Your task to perform on an android device: Show me popular videos on Youtube Image 0: 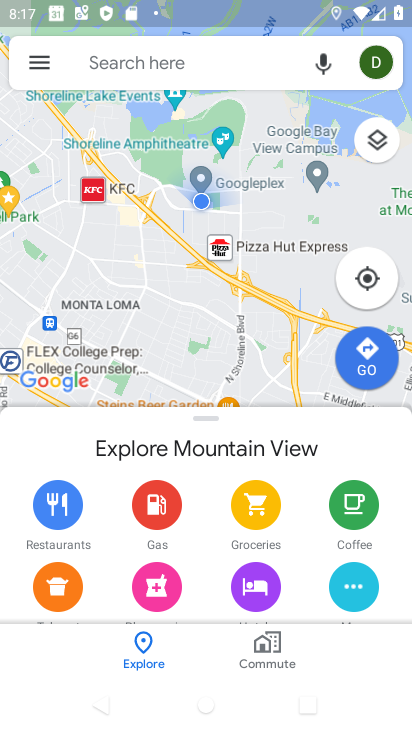
Step 0: press home button
Your task to perform on an android device: Show me popular videos on Youtube Image 1: 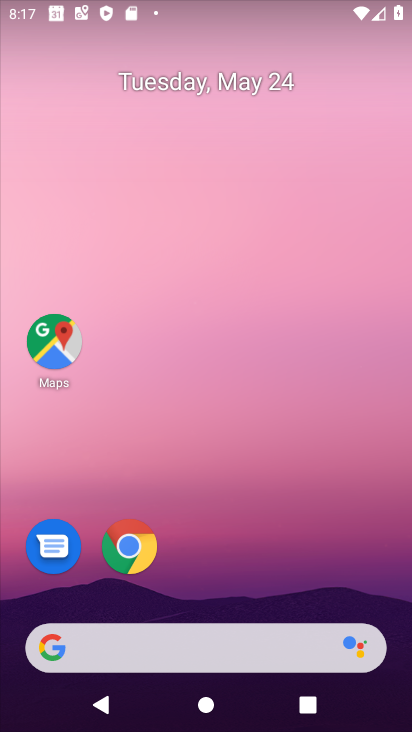
Step 1: drag from (276, 581) to (272, 45)
Your task to perform on an android device: Show me popular videos on Youtube Image 2: 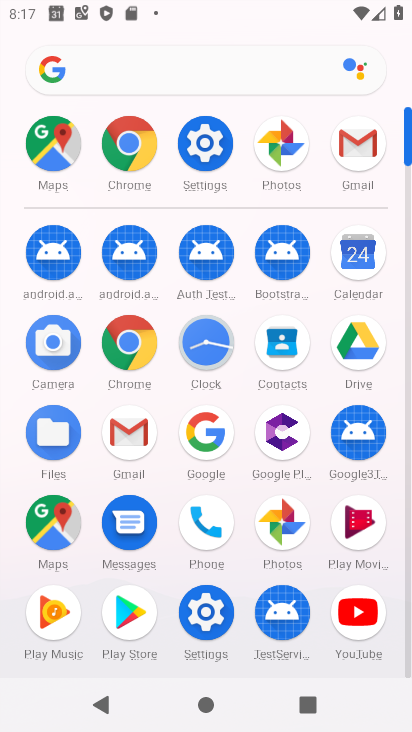
Step 2: click (368, 616)
Your task to perform on an android device: Show me popular videos on Youtube Image 3: 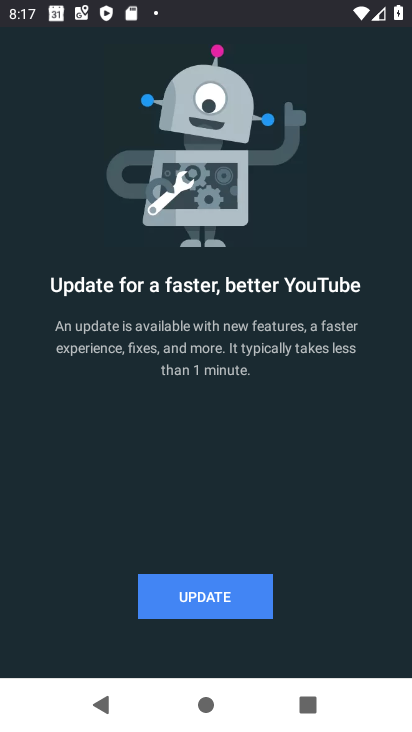
Step 3: click (272, 601)
Your task to perform on an android device: Show me popular videos on Youtube Image 4: 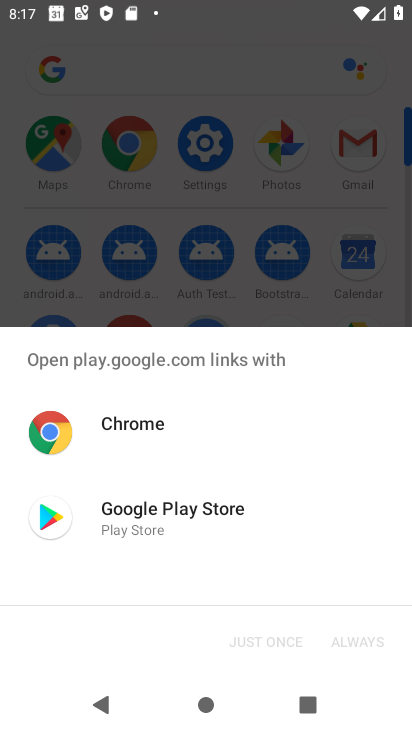
Step 4: click (145, 517)
Your task to perform on an android device: Show me popular videos on Youtube Image 5: 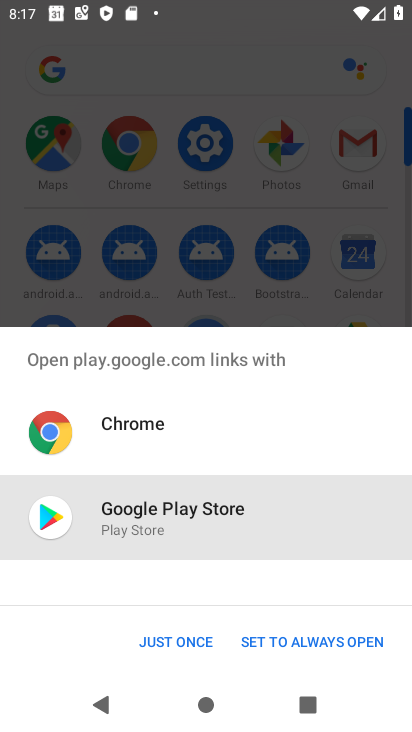
Step 5: click (180, 629)
Your task to perform on an android device: Show me popular videos on Youtube Image 6: 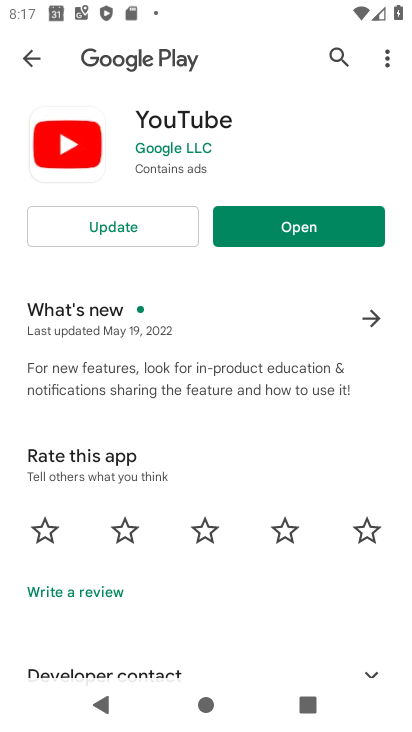
Step 6: click (343, 222)
Your task to perform on an android device: Show me popular videos on Youtube Image 7: 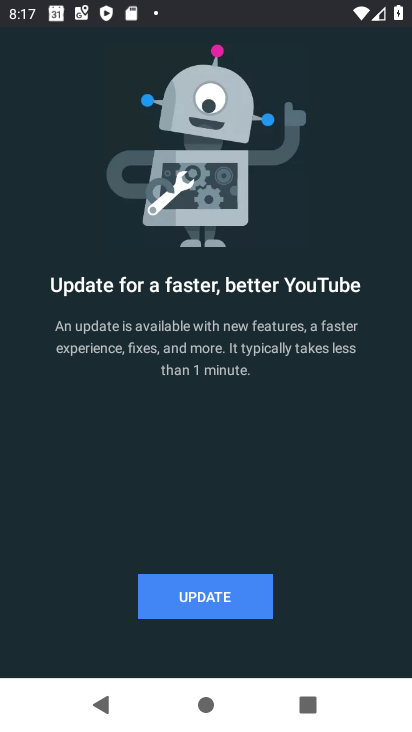
Step 7: click (251, 600)
Your task to perform on an android device: Show me popular videos on Youtube Image 8: 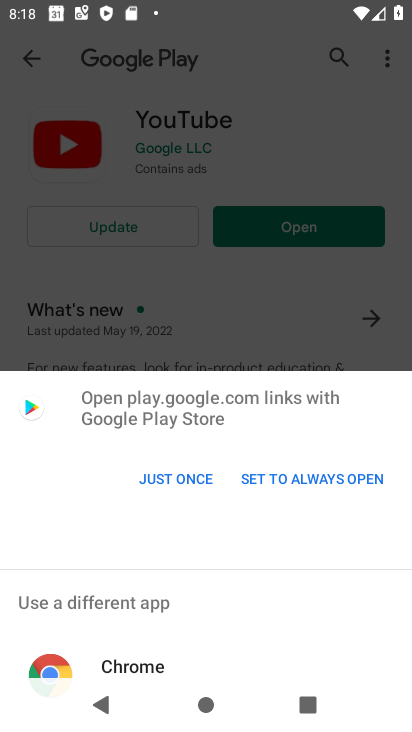
Step 8: click (182, 467)
Your task to perform on an android device: Show me popular videos on Youtube Image 9: 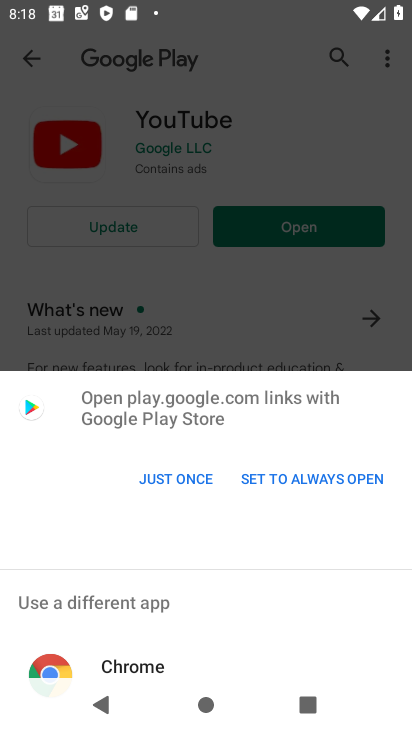
Step 9: click (185, 472)
Your task to perform on an android device: Show me popular videos on Youtube Image 10: 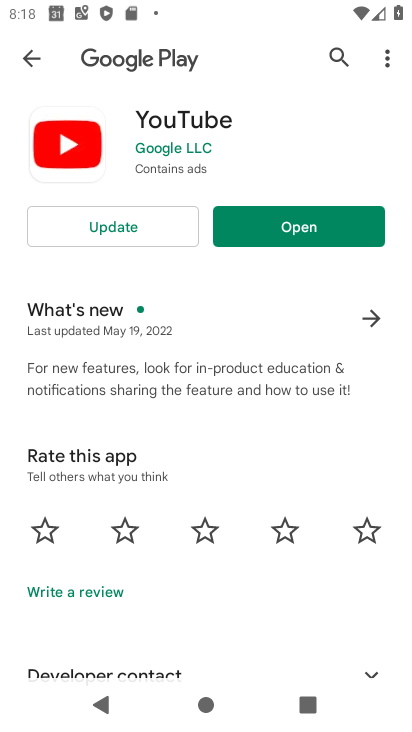
Step 10: click (157, 228)
Your task to perform on an android device: Show me popular videos on Youtube Image 11: 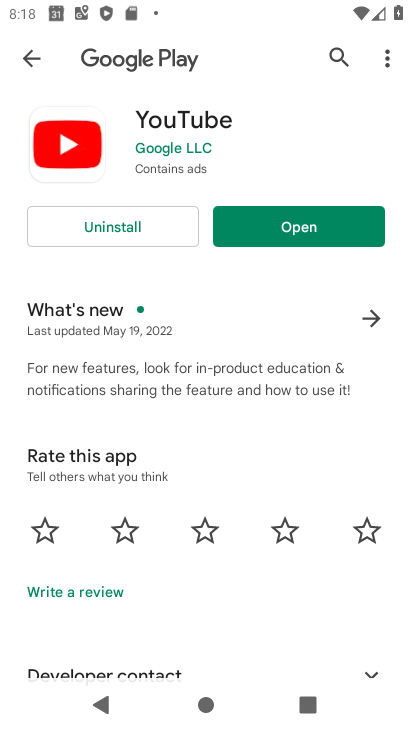
Step 11: click (367, 230)
Your task to perform on an android device: Show me popular videos on Youtube Image 12: 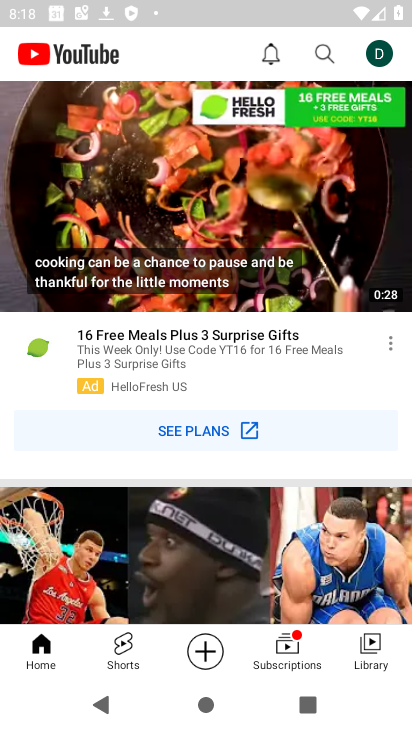
Step 12: click (315, 49)
Your task to perform on an android device: Show me popular videos on Youtube Image 13: 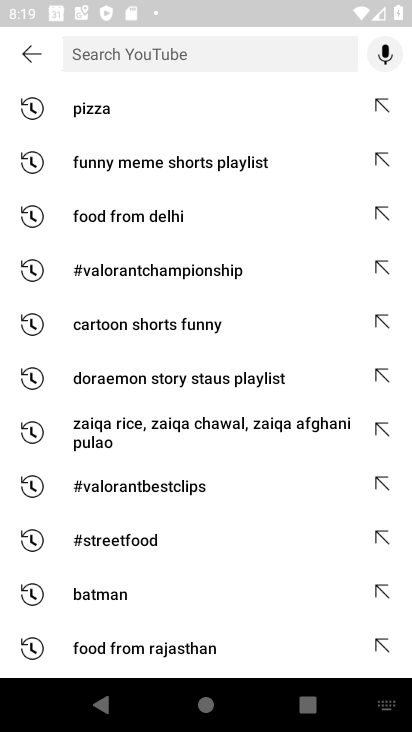
Step 13: type "popular videos"
Your task to perform on an android device: Show me popular videos on Youtube Image 14: 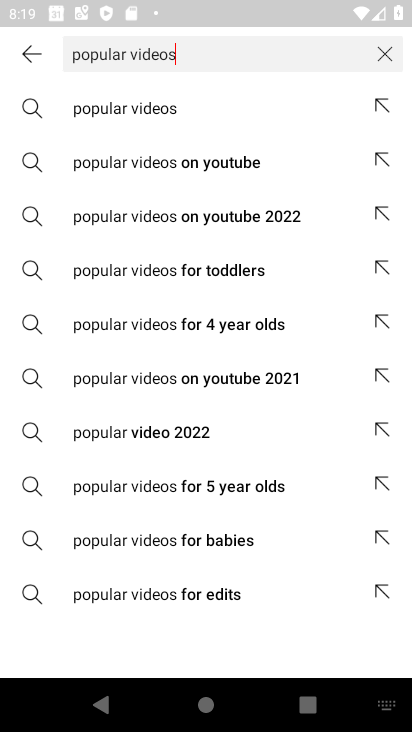
Step 14: click (248, 162)
Your task to perform on an android device: Show me popular videos on Youtube Image 15: 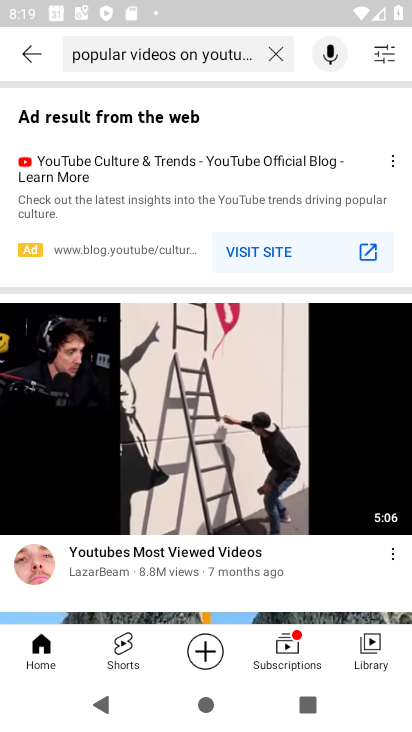
Step 15: task complete